Your task to perform on an android device: see creations saved in the google photos Image 0: 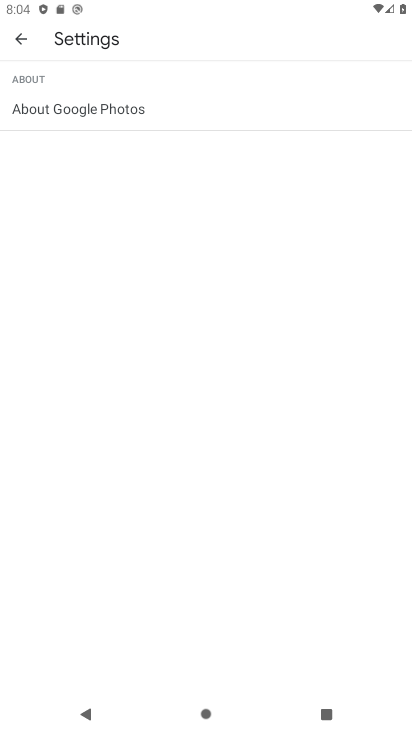
Step 0: press home button
Your task to perform on an android device: see creations saved in the google photos Image 1: 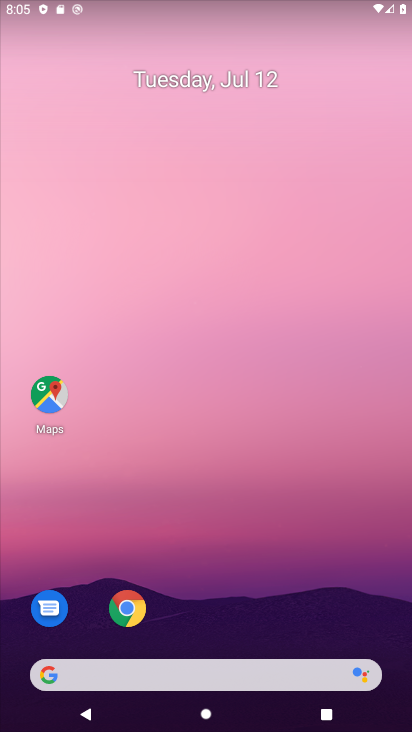
Step 1: drag from (224, 633) to (393, 95)
Your task to perform on an android device: see creations saved in the google photos Image 2: 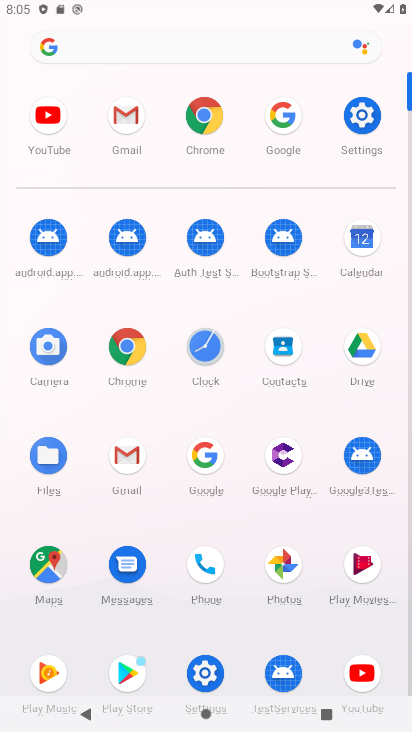
Step 2: click (287, 563)
Your task to perform on an android device: see creations saved in the google photos Image 3: 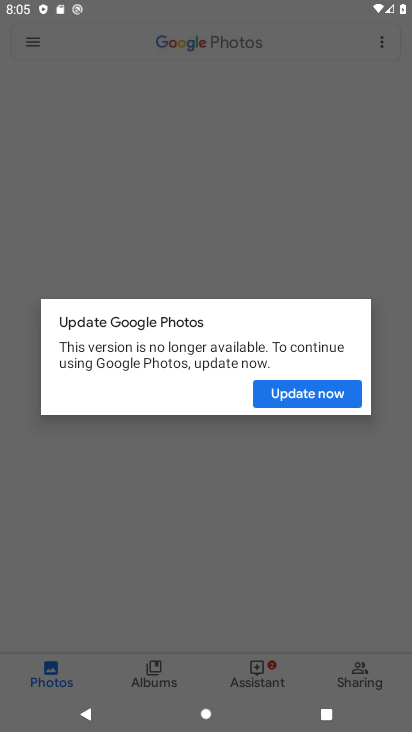
Step 3: click (330, 400)
Your task to perform on an android device: see creations saved in the google photos Image 4: 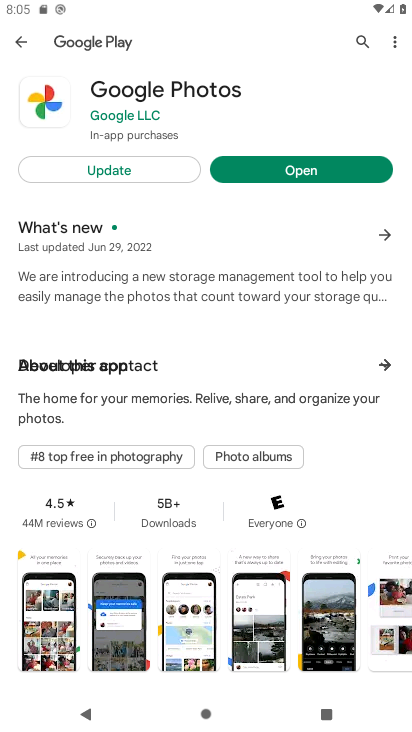
Step 4: click (339, 171)
Your task to perform on an android device: see creations saved in the google photos Image 5: 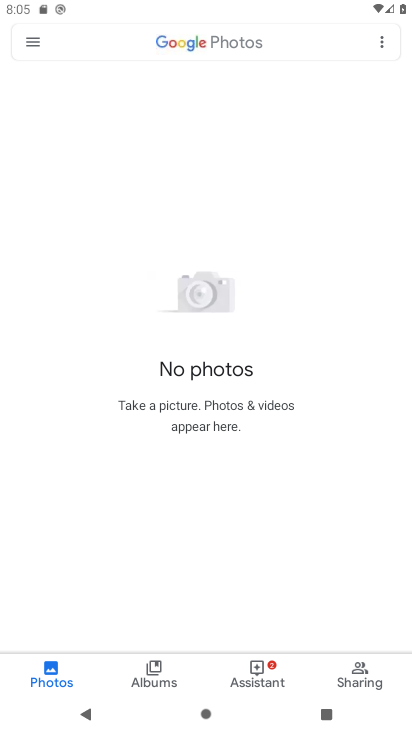
Step 5: click (158, 684)
Your task to perform on an android device: see creations saved in the google photos Image 6: 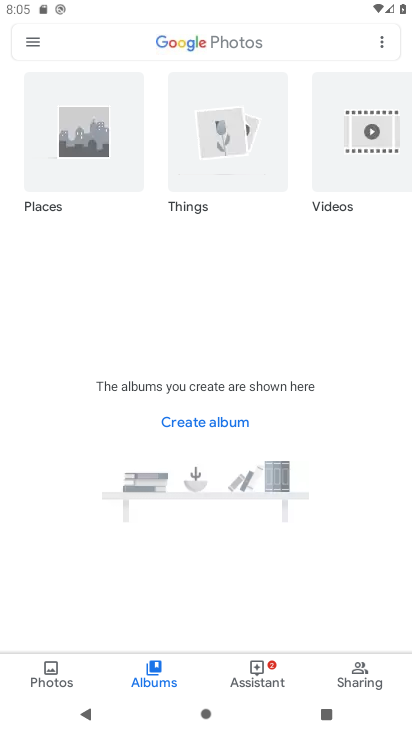
Step 6: click (190, 37)
Your task to perform on an android device: see creations saved in the google photos Image 7: 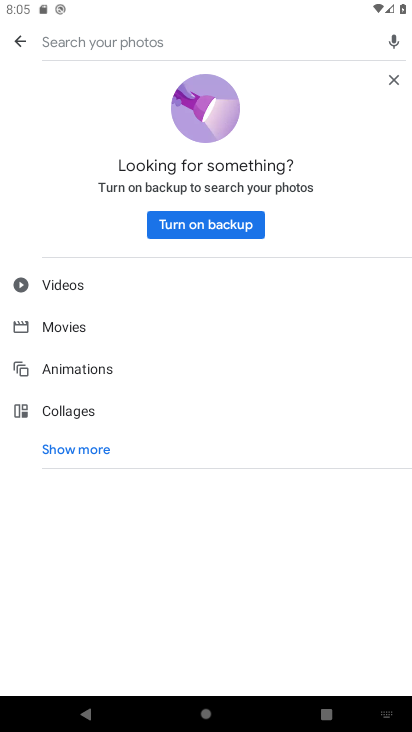
Step 7: click (76, 448)
Your task to perform on an android device: see creations saved in the google photos Image 8: 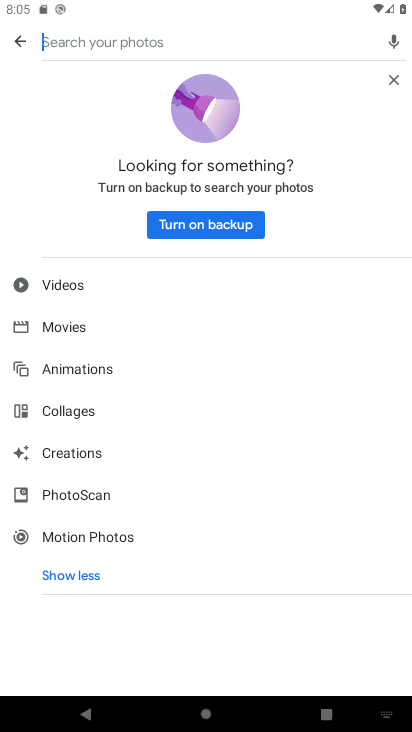
Step 8: click (68, 445)
Your task to perform on an android device: see creations saved in the google photos Image 9: 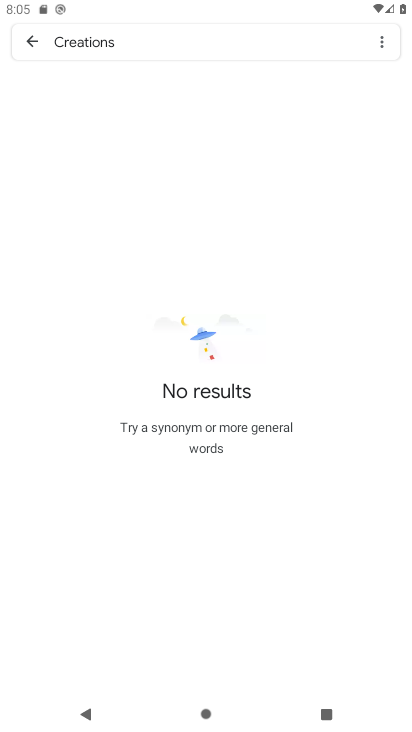
Step 9: task complete